Your task to perform on an android device: see sites visited before in the chrome app Image 0: 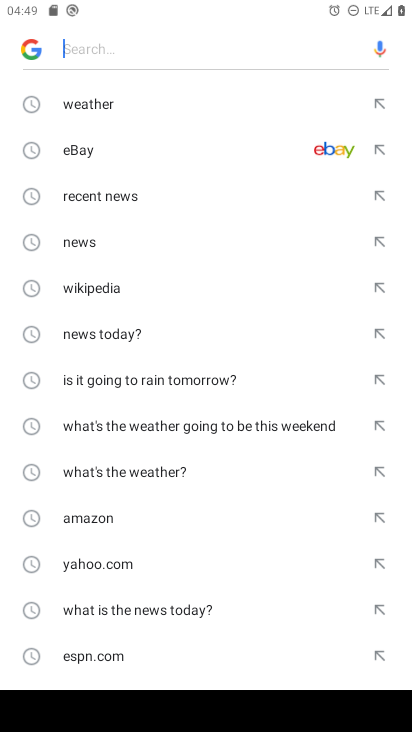
Step 0: press back button
Your task to perform on an android device: see sites visited before in the chrome app Image 1: 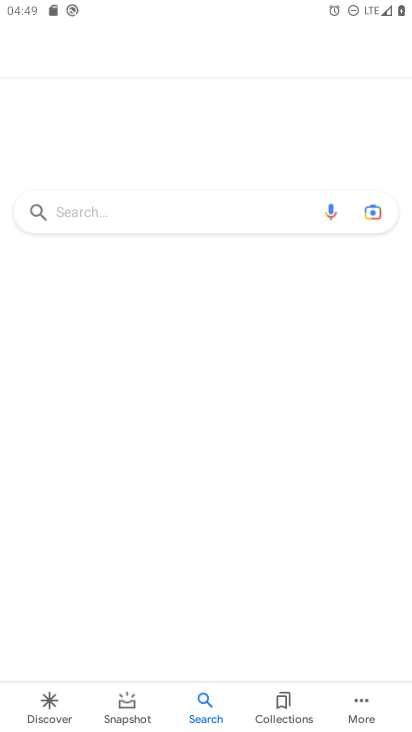
Step 1: press home button
Your task to perform on an android device: see sites visited before in the chrome app Image 2: 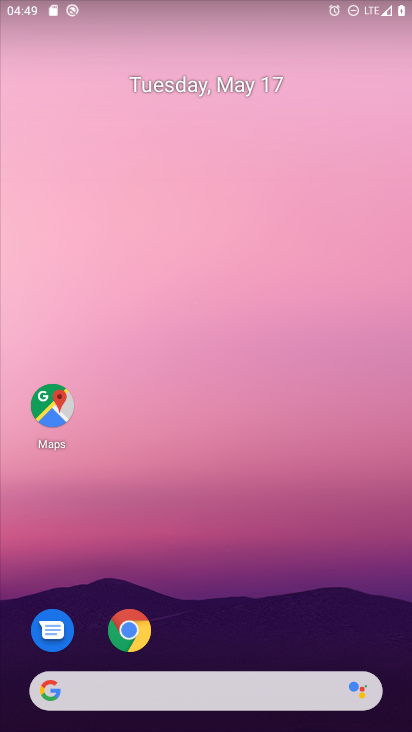
Step 2: click (123, 631)
Your task to perform on an android device: see sites visited before in the chrome app Image 3: 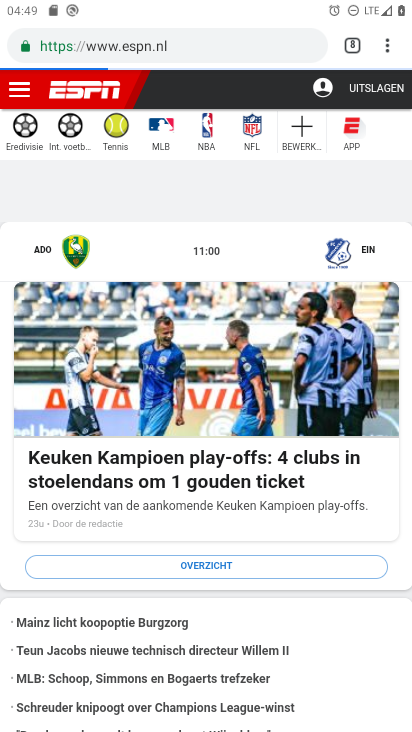
Step 3: task complete